Your task to perform on an android device: When is my next meeting? Image 0: 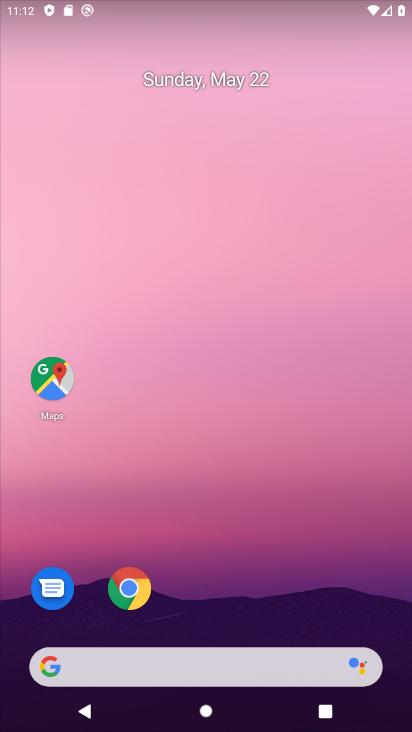
Step 0: drag from (225, 693) to (248, 106)
Your task to perform on an android device: When is my next meeting? Image 1: 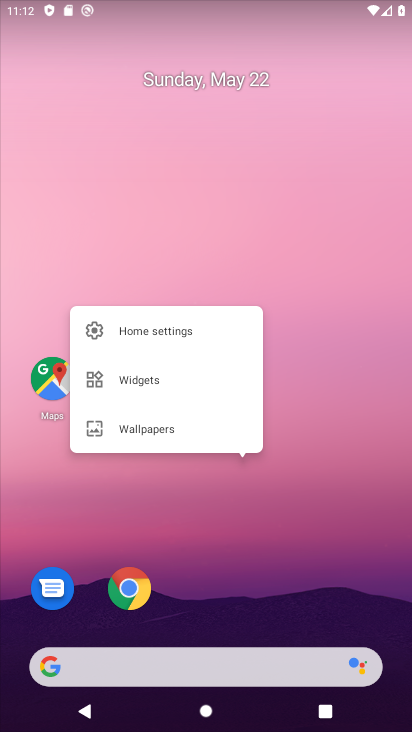
Step 1: click (327, 389)
Your task to perform on an android device: When is my next meeting? Image 2: 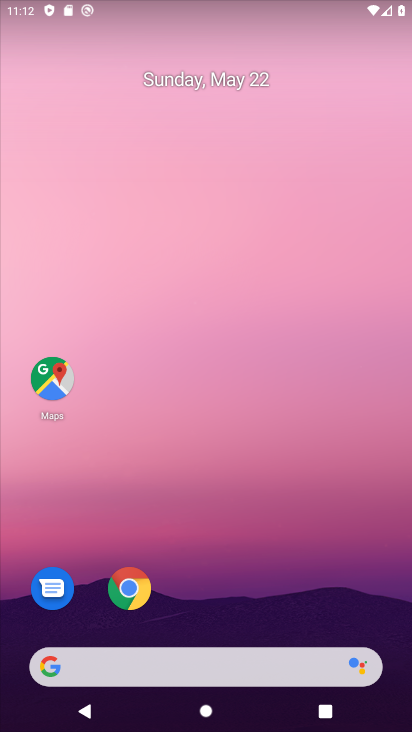
Step 2: drag from (257, 699) to (249, 172)
Your task to perform on an android device: When is my next meeting? Image 3: 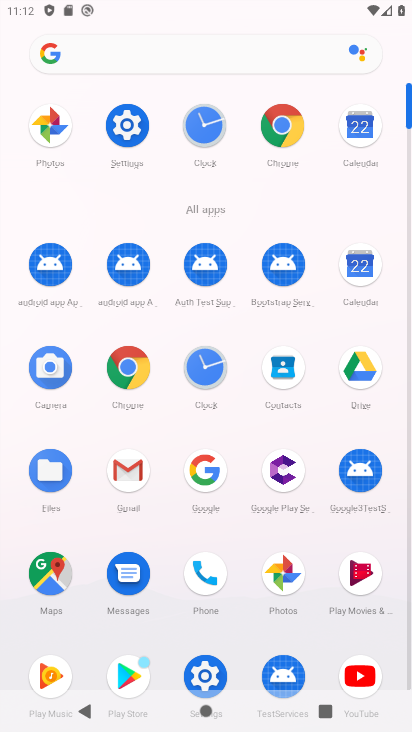
Step 3: click (361, 265)
Your task to perform on an android device: When is my next meeting? Image 4: 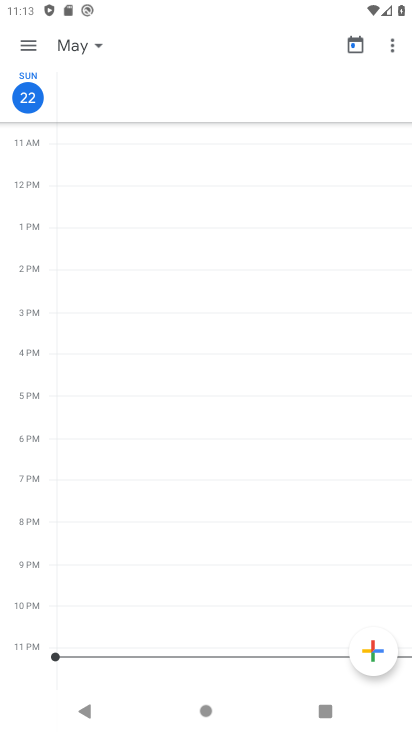
Step 4: click (33, 39)
Your task to perform on an android device: When is my next meeting? Image 5: 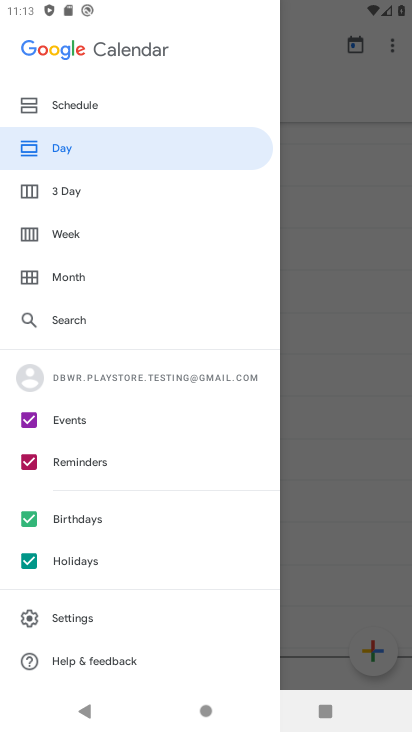
Step 5: click (85, 103)
Your task to perform on an android device: When is my next meeting? Image 6: 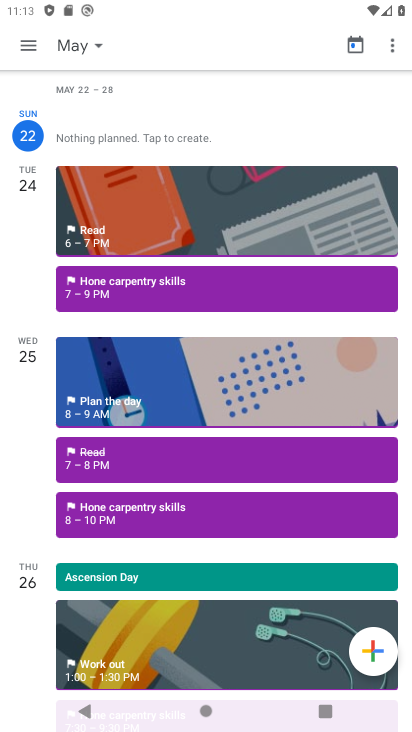
Step 6: task complete